Your task to perform on an android device: Open the web browser Image 0: 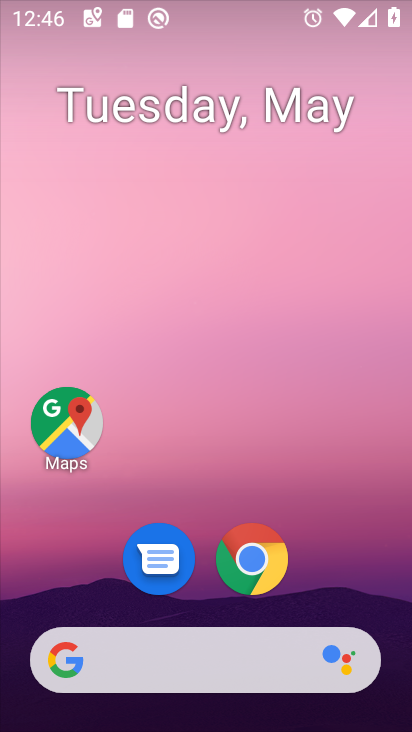
Step 0: drag from (351, 615) to (276, 107)
Your task to perform on an android device: Open the web browser Image 1: 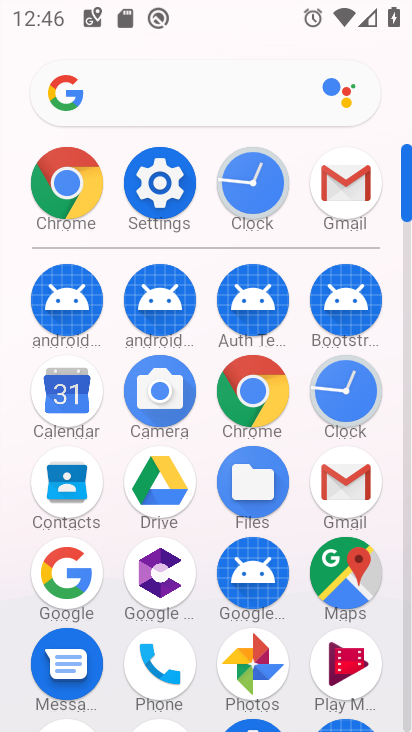
Step 1: click (88, 203)
Your task to perform on an android device: Open the web browser Image 2: 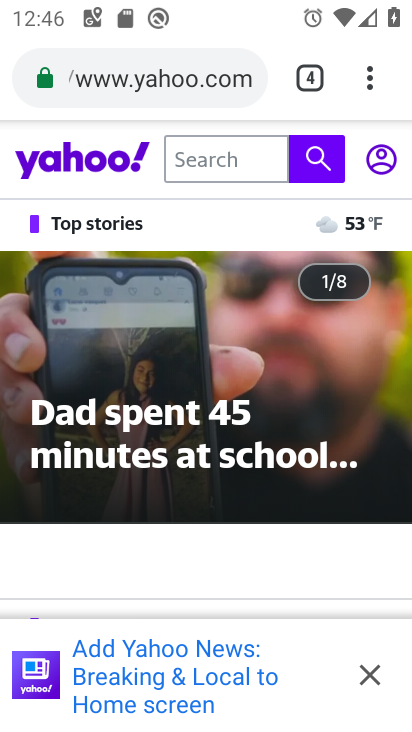
Step 2: task complete